Your task to perform on an android device: What is the recent news? Image 0: 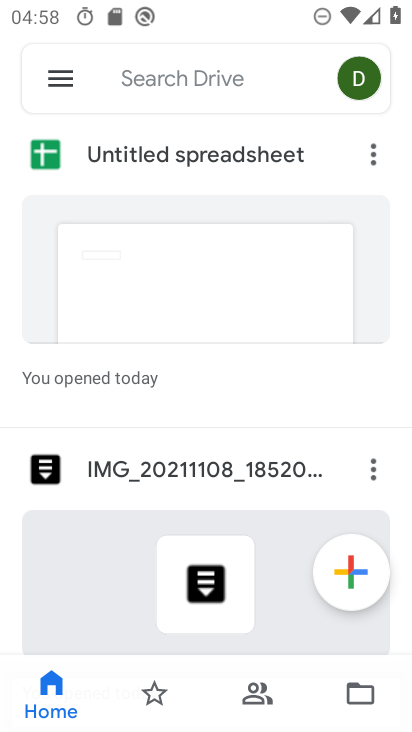
Step 0: press home button
Your task to perform on an android device: What is the recent news? Image 1: 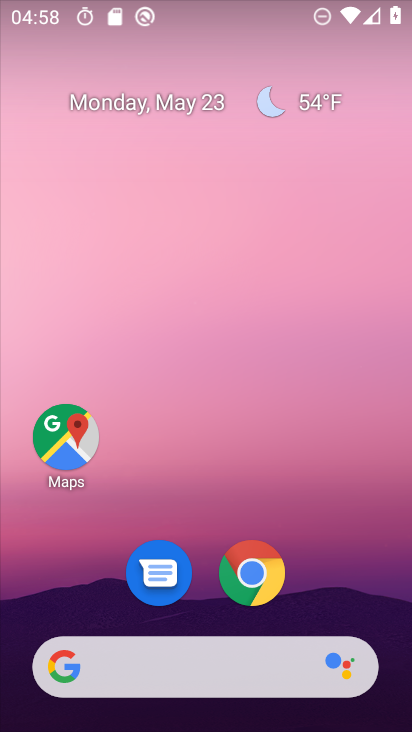
Step 1: click (221, 667)
Your task to perform on an android device: What is the recent news? Image 2: 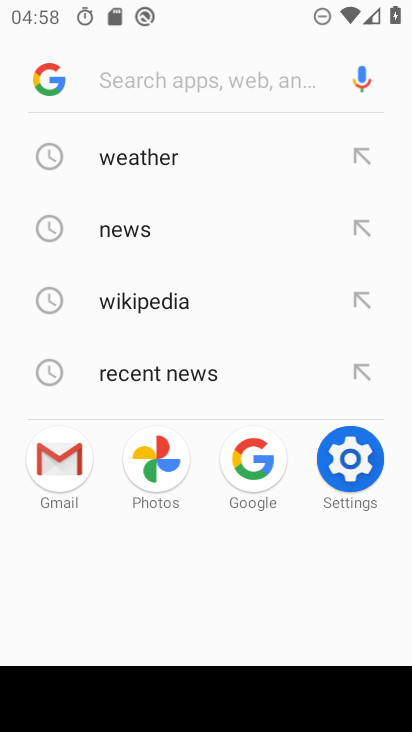
Step 2: click (156, 370)
Your task to perform on an android device: What is the recent news? Image 3: 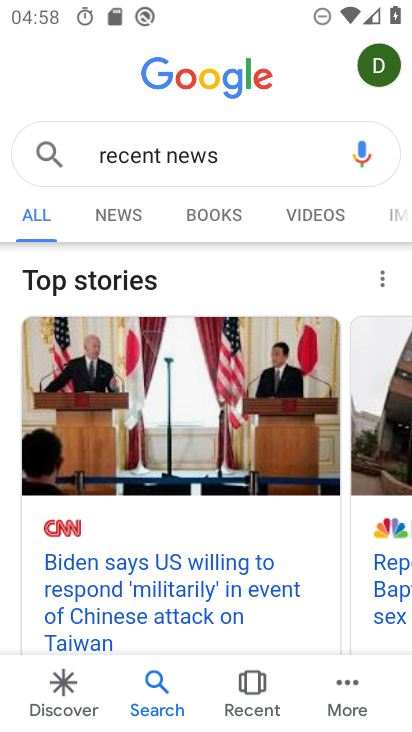
Step 3: click (120, 225)
Your task to perform on an android device: What is the recent news? Image 4: 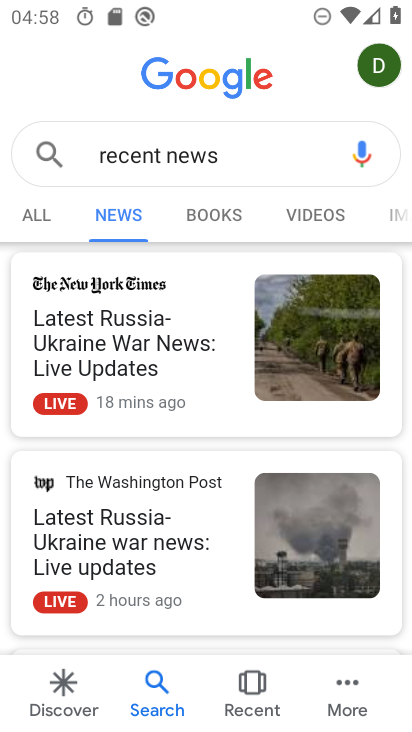
Step 4: task complete